Your task to perform on an android device: find photos in the google photos app Image 0: 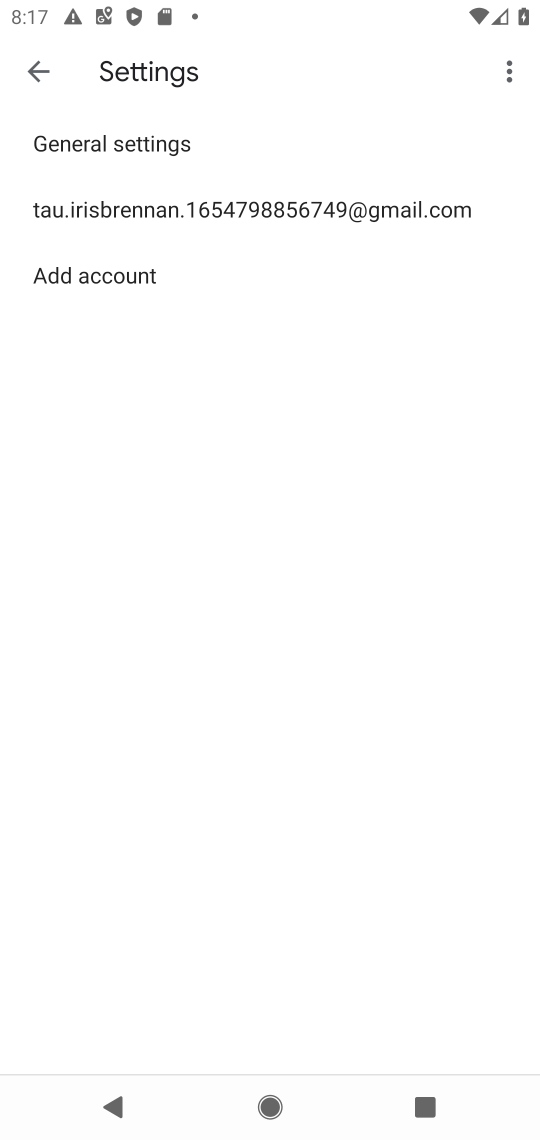
Step 0: press home button
Your task to perform on an android device: find photos in the google photos app Image 1: 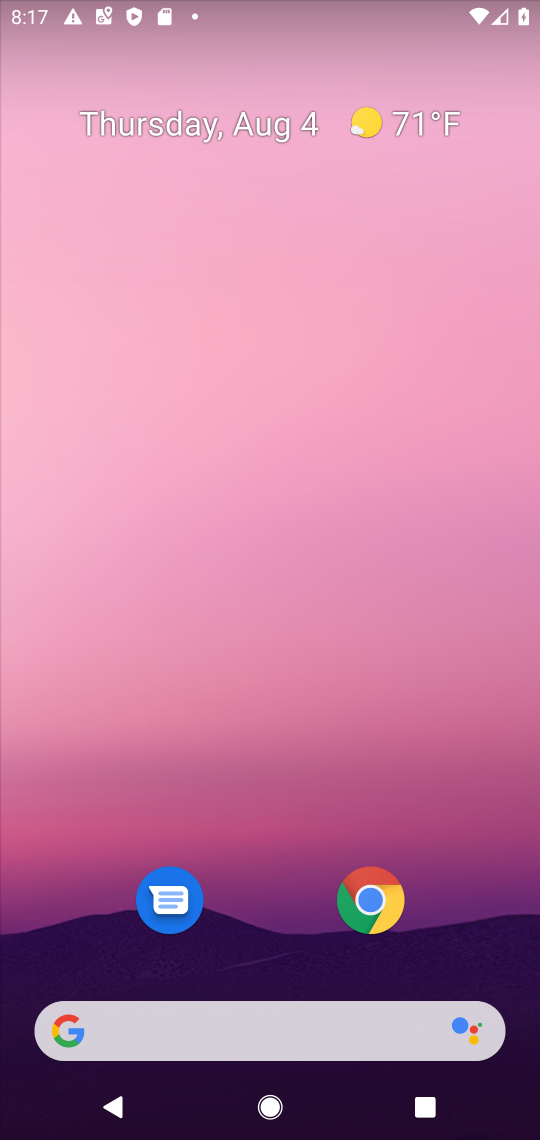
Step 1: drag from (267, 956) to (242, 63)
Your task to perform on an android device: find photos in the google photos app Image 2: 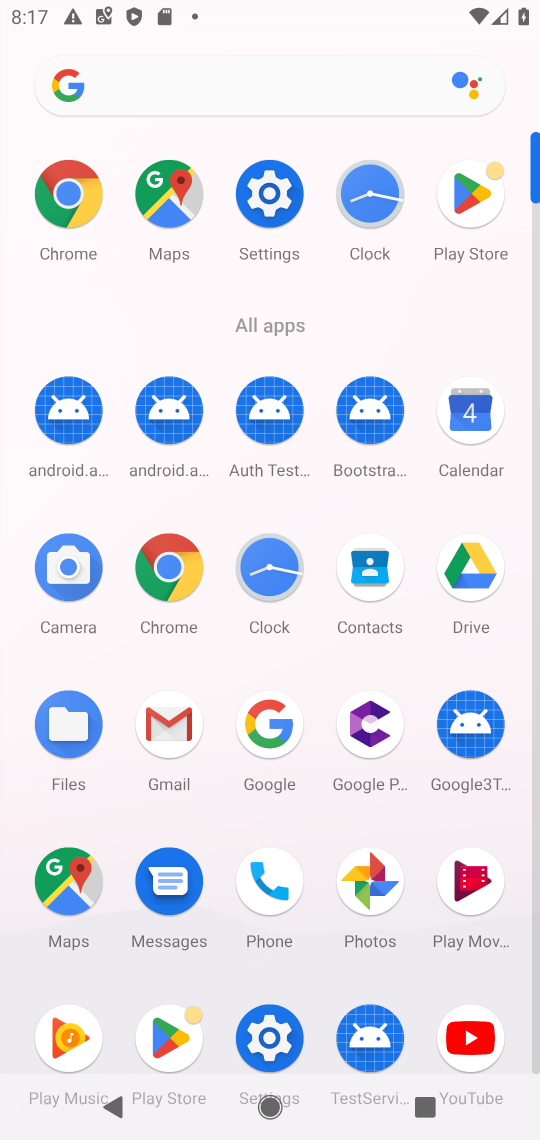
Step 2: click (378, 882)
Your task to perform on an android device: find photos in the google photos app Image 3: 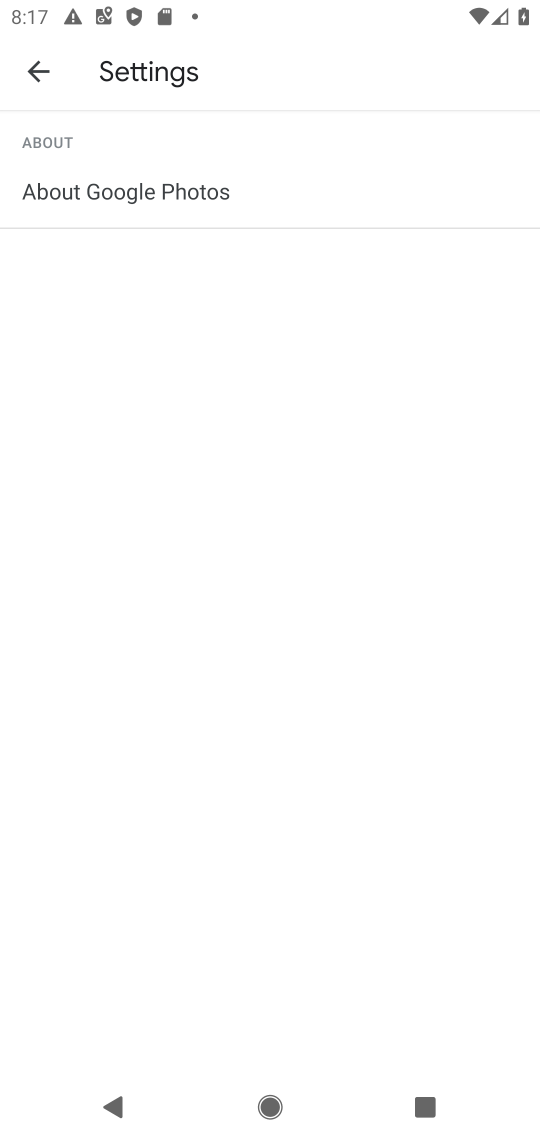
Step 3: click (34, 72)
Your task to perform on an android device: find photos in the google photos app Image 4: 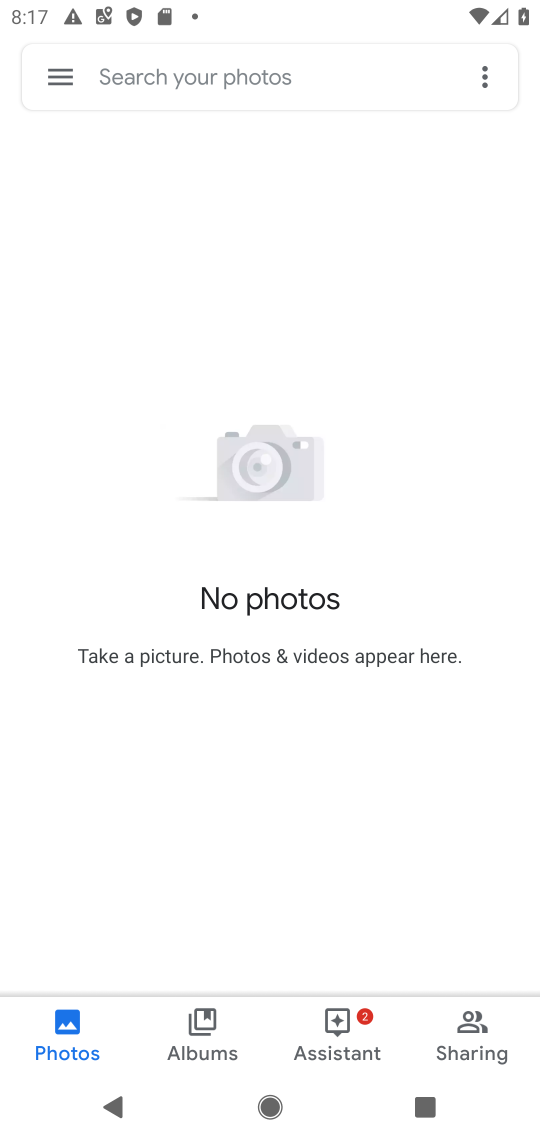
Step 4: task complete